Your task to perform on an android device: turn notification dots on Image 0: 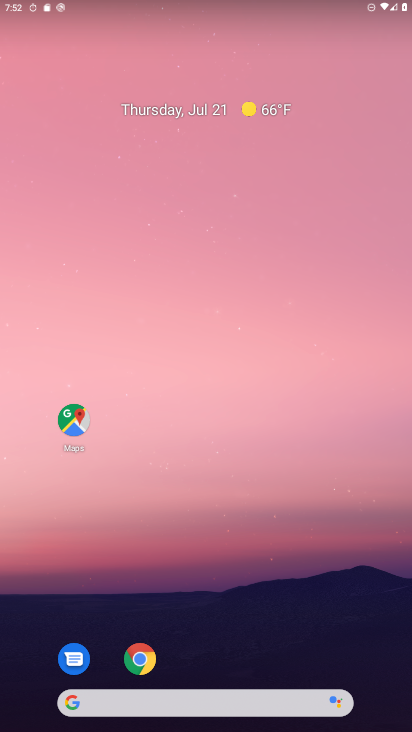
Step 0: drag from (192, 655) to (408, 302)
Your task to perform on an android device: turn notification dots on Image 1: 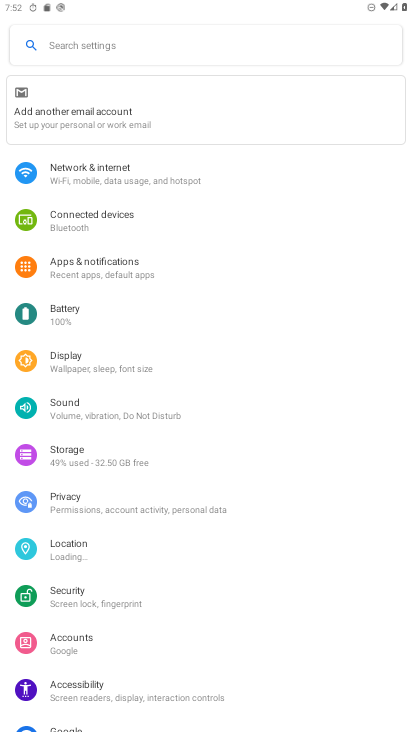
Step 1: click (134, 274)
Your task to perform on an android device: turn notification dots on Image 2: 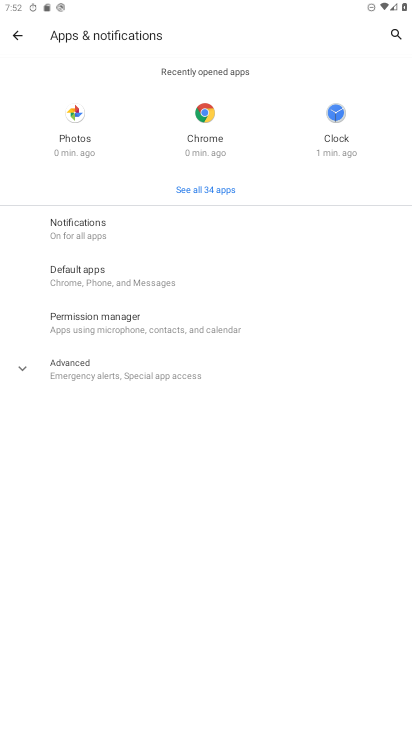
Step 2: click (185, 232)
Your task to perform on an android device: turn notification dots on Image 3: 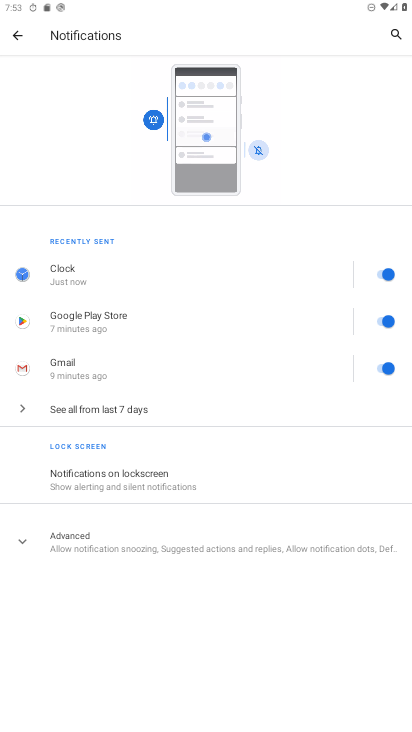
Step 3: click (87, 538)
Your task to perform on an android device: turn notification dots on Image 4: 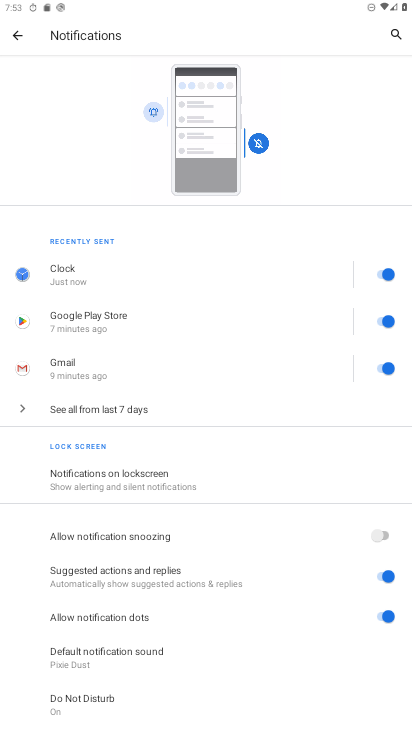
Step 4: task complete